Your task to perform on an android device: uninstall "The Home Depot" Image 0: 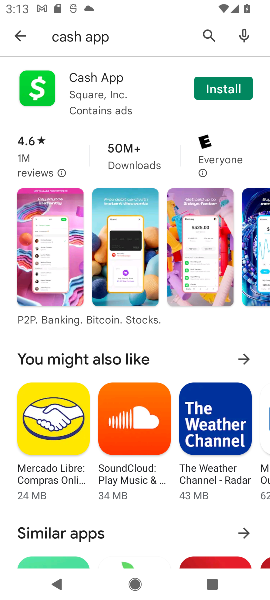
Step 0: press home button
Your task to perform on an android device: uninstall "The Home Depot" Image 1: 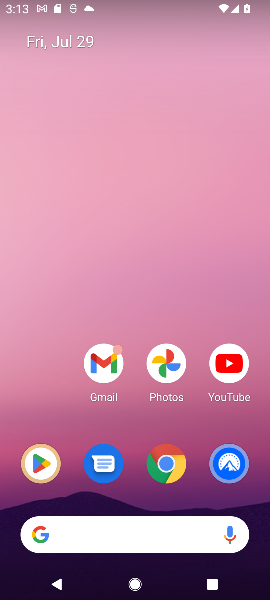
Step 1: drag from (100, 528) to (136, 147)
Your task to perform on an android device: uninstall "The Home Depot" Image 2: 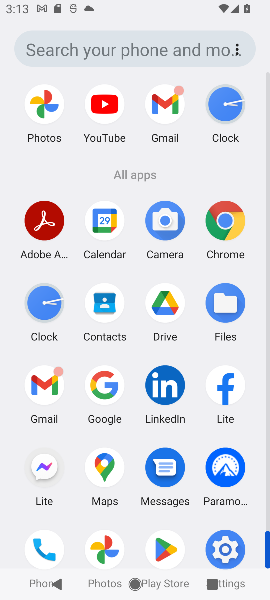
Step 2: drag from (125, 508) to (136, 257)
Your task to perform on an android device: uninstall "The Home Depot" Image 3: 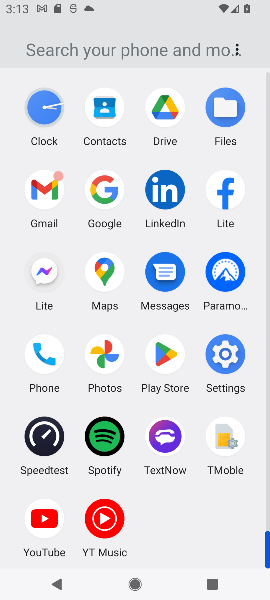
Step 3: click (163, 354)
Your task to perform on an android device: uninstall "The Home Depot" Image 4: 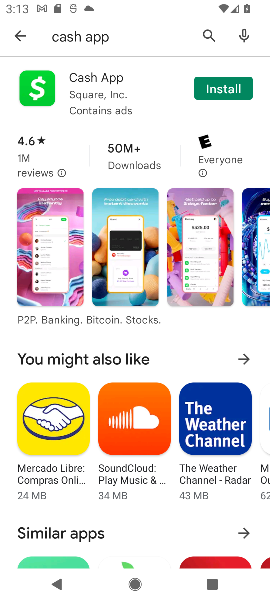
Step 4: click (207, 33)
Your task to perform on an android device: uninstall "The Home Depot" Image 5: 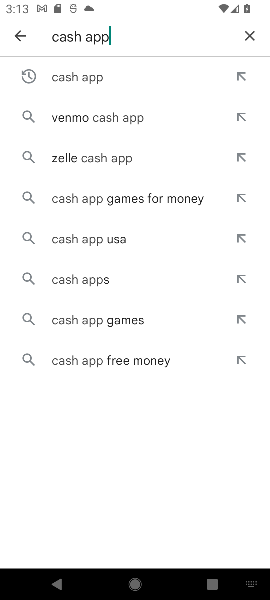
Step 5: click (248, 38)
Your task to perform on an android device: uninstall "The Home Depot" Image 6: 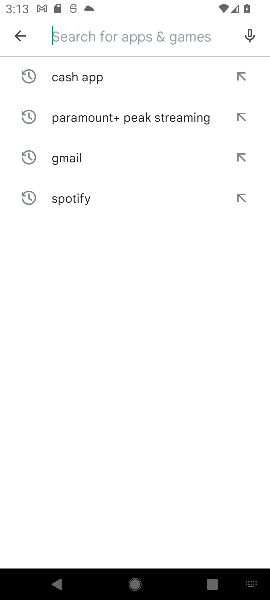
Step 6: type "The Home Depot"
Your task to perform on an android device: uninstall "The Home Depot" Image 7: 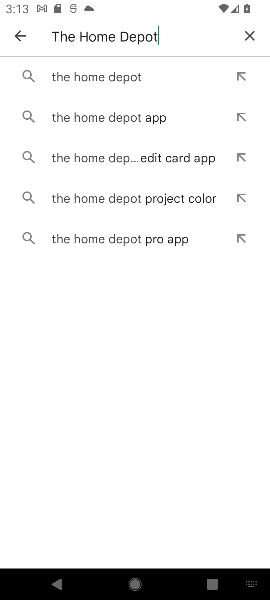
Step 7: click (124, 75)
Your task to perform on an android device: uninstall "The Home Depot" Image 8: 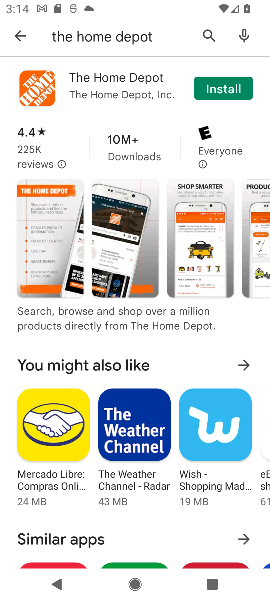
Step 8: task complete